Your task to perform on an android device: Show me popular videos on Youtube Image 0: 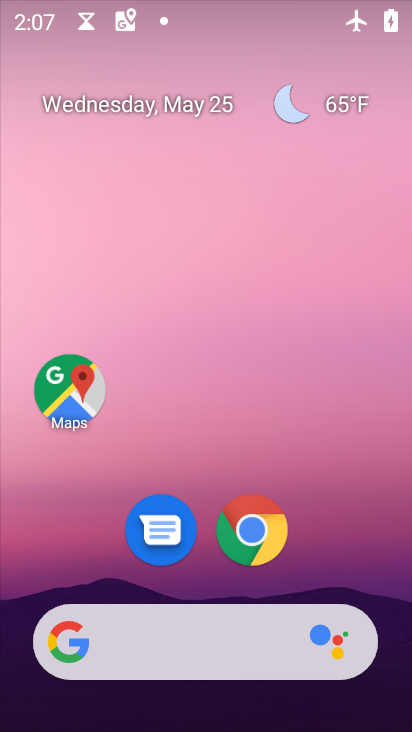
Step 0: click (253, 530)
Your task to perform on an android device: Show me popular videos on Youtube Image 1: 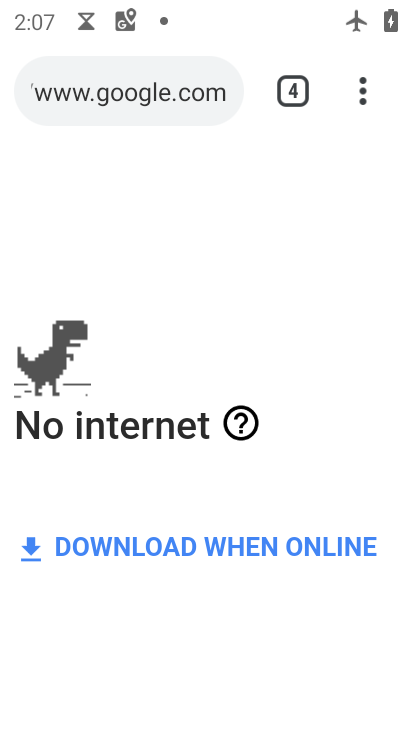
Step 1: press home button
Your task to perform on an android device: Show me popular videos on Youtube Image 2: 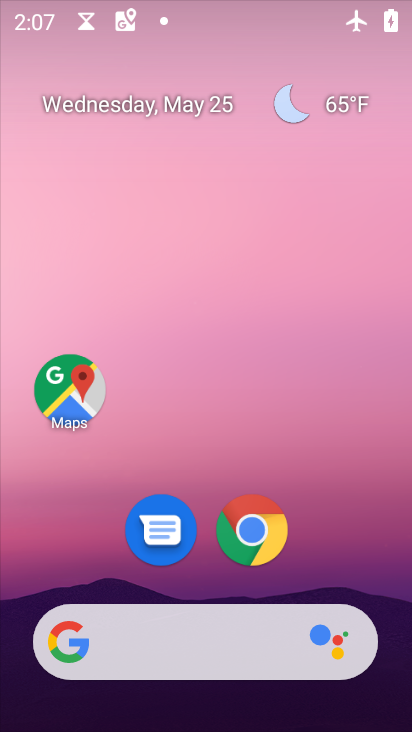
Step 2: drag from (317, 550) to (336, 200)
Your task to perform on an android device: Show me popular videos on Youtube Image 3: 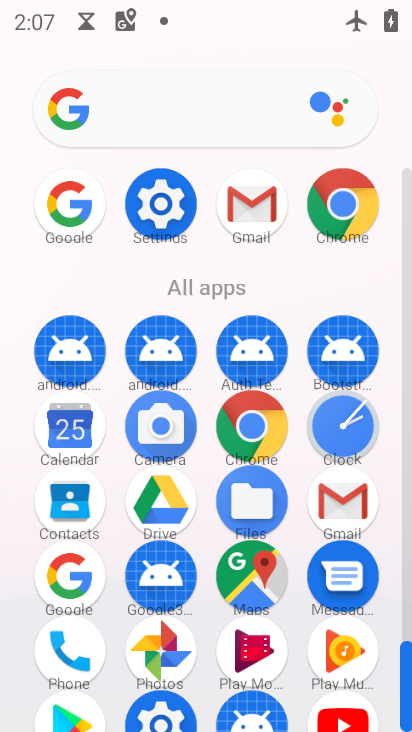
Step 3: drag from (329, 618) to (310, 432)
Your task to perform on an android device: Show me popular videos on Youtube Image 4: 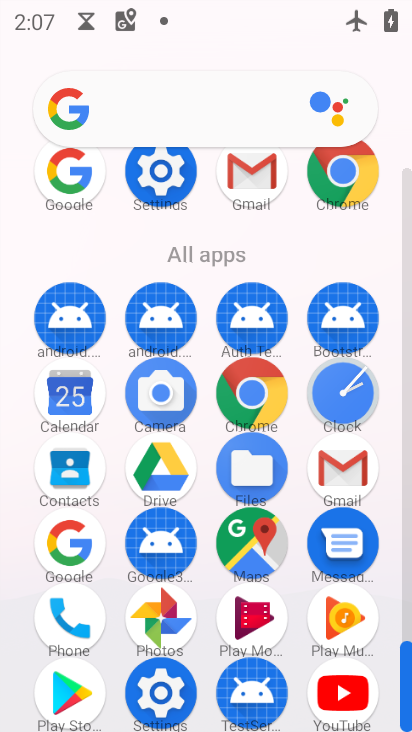
Step 4: click (334, 678)
Your task to perform on an android device: Show me popular videos on Youtube Image 5: 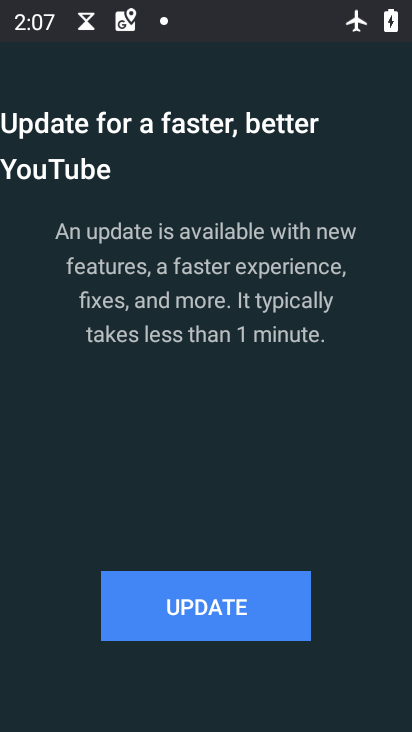
Step 5: task complete